Your task to perform on an android device: turn off notifications in google photos Image 0: 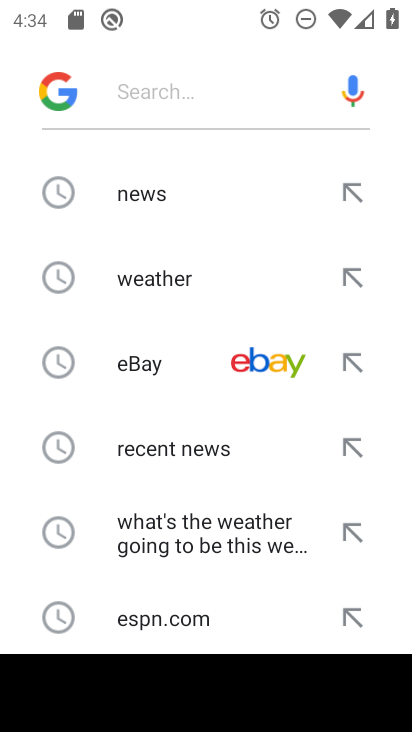
Step 0: press home button
Your task to perform on an android device: turn off notifications in google photos Image 1: 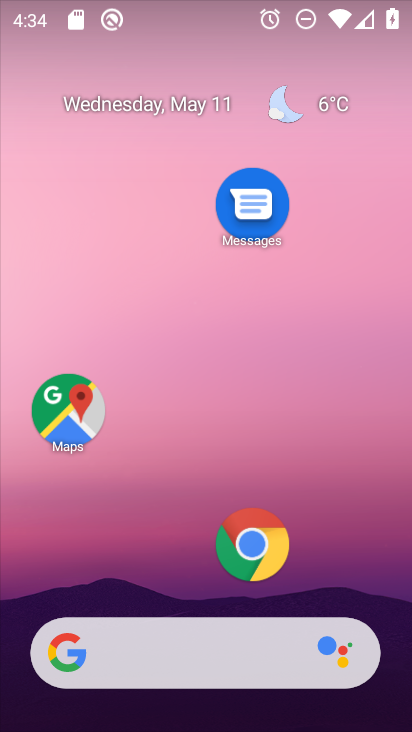
Step 1: drag from (144, 587) to (247, 46)
Your task to perform on an android device: turn off notifications in google photos Image 2: 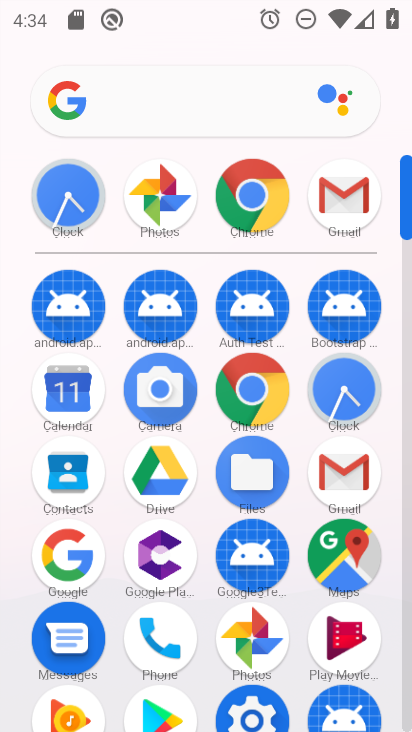
Step 2: click (262, 638)
Your task to perform on an android device: turn off notifications in google photos Image 3: 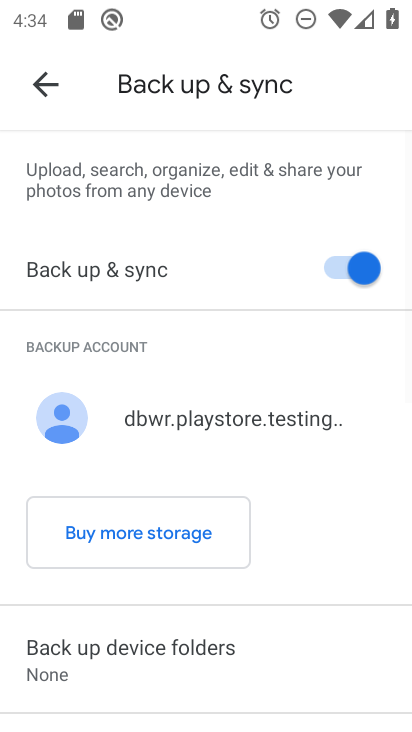
Step 3: click (52, 78)
Your task to perform on an android device: turn off notifications in google photos Image 4: 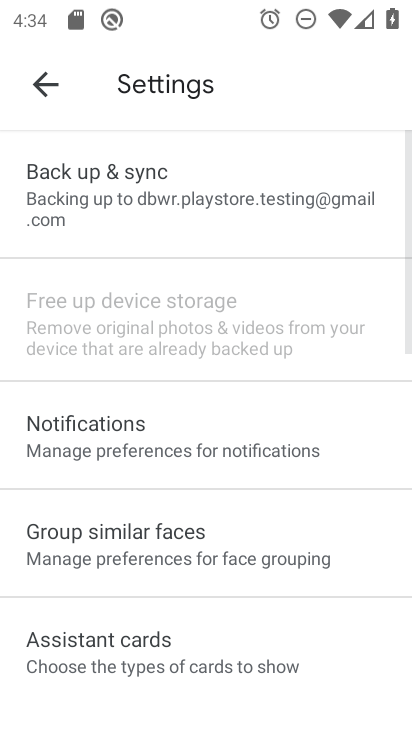
Step 4: click (80, 462)
Your task to perform on an android device: turn off notifications in google photos Image 5: 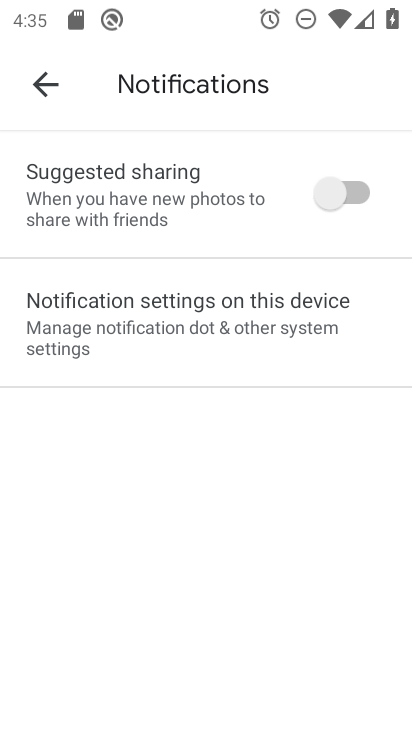
Step 5: click (184, 319)
Your task to perform on an android device: turn off notifications in google photos Image 6: 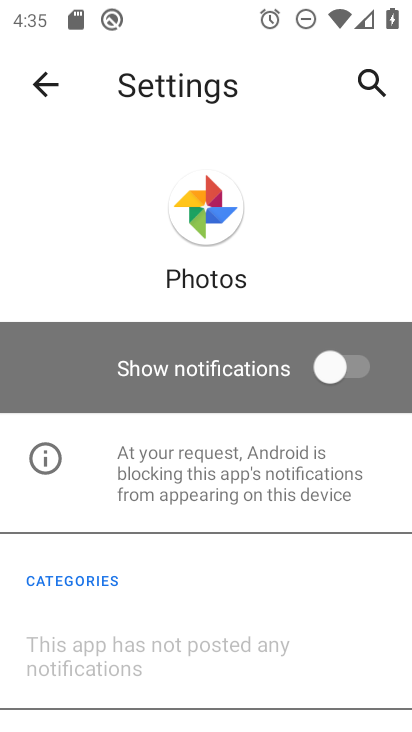
Step 6: task complete